Your task to perform on an android device: Go to battery settings Image 0: 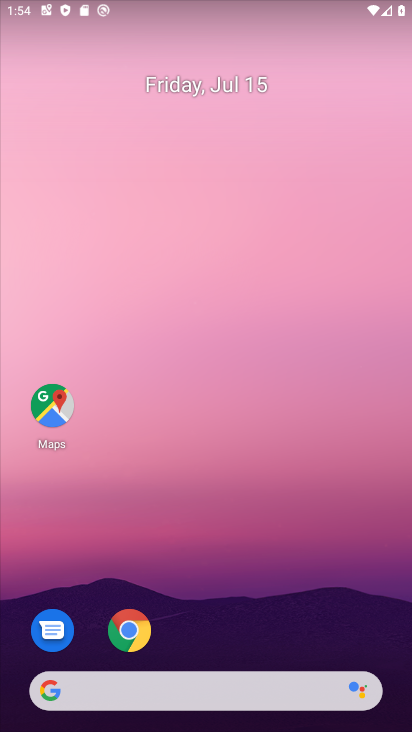
Step 0: drag from (291, 557) to (242, 65)
Your task to perform on an android device: Go to battery settings Image 1: 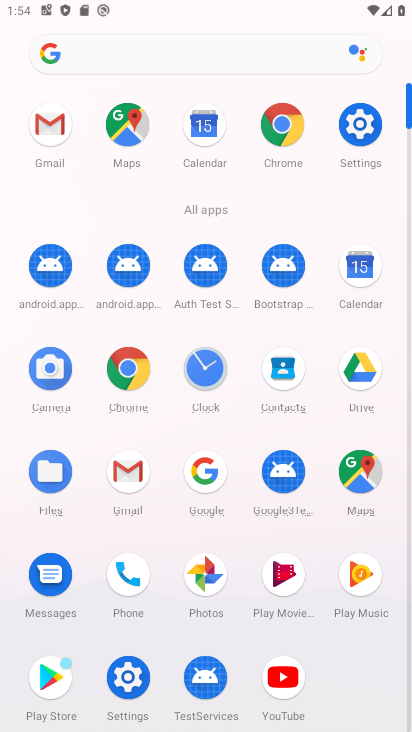
Step 1: click (355, 123)
Your task to perform on an android device: Go to battery settings Image 2: 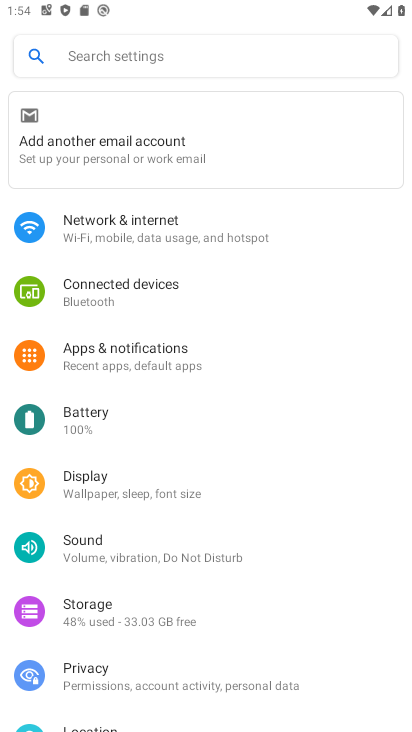
Step 2: click (80, 421)
Your task to perform on an android device: Go to battery settings Image 3: 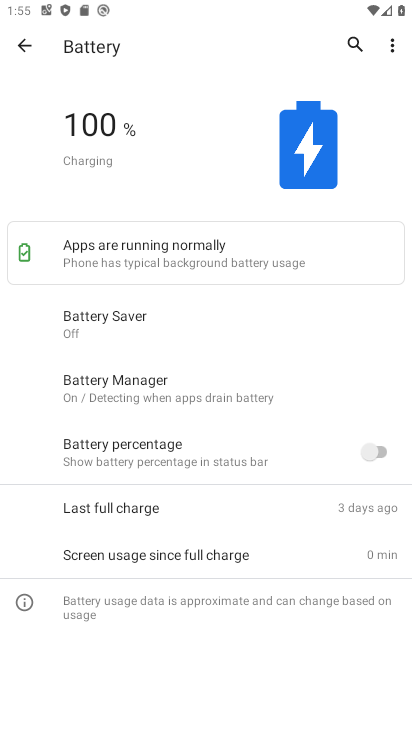
Step 3: task complete